Your task to perform on an android device: Open the map Image 0: 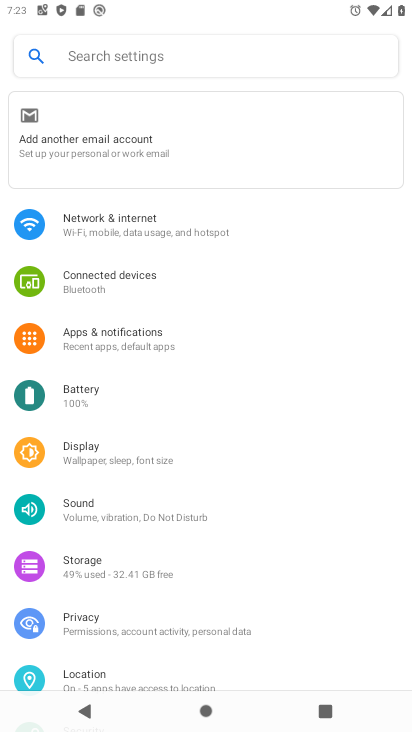
Step 0: press home button
Your task to perform on an android device: Open the map Image 1: 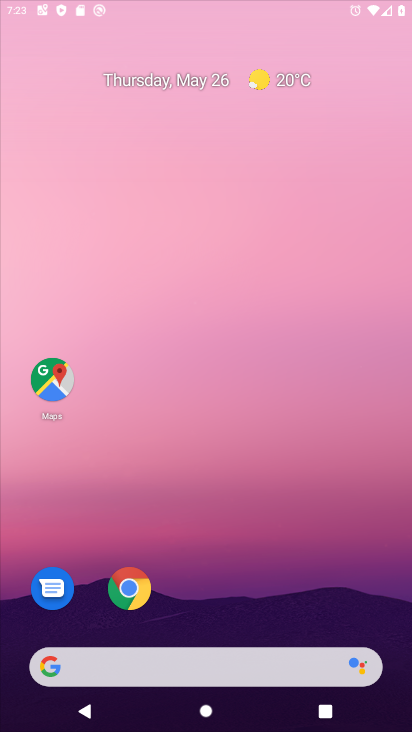
Step 1: drag from (370, 597) to (336, 0)
Your task to perform on an android device: Open the map Image 2: 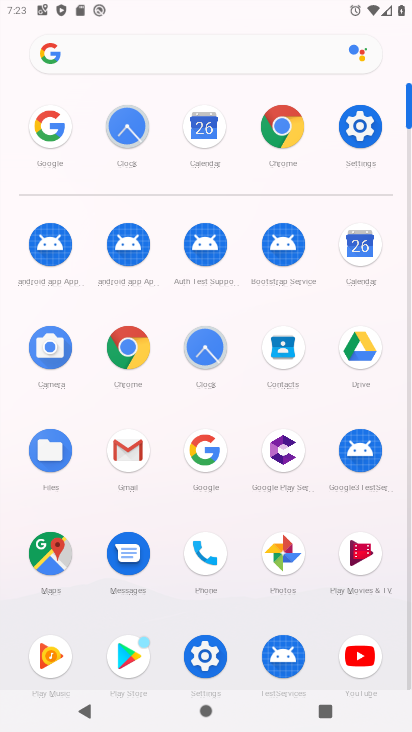
Step 2: click (51, 562)
Your task to perform on an android device: Open the map Image 3: 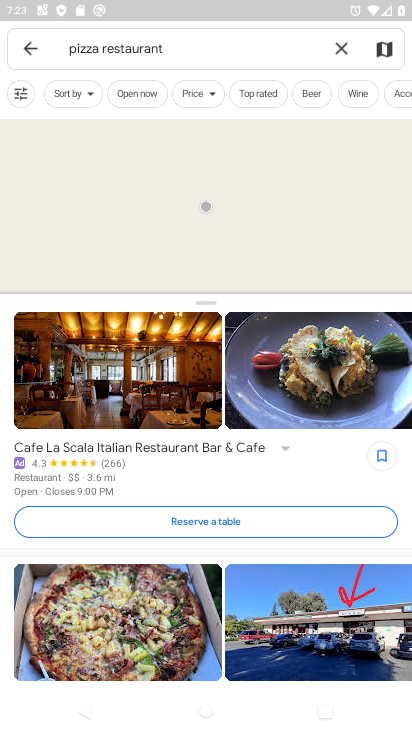
Step 3: click (331, 37)
Your task to perform on an android device: Open the map Image 4: 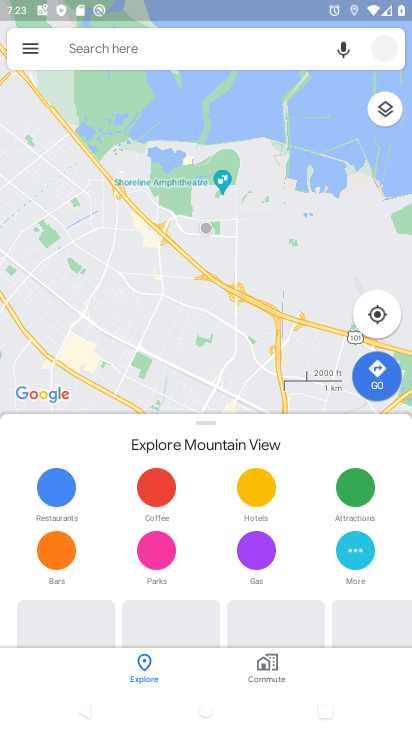
Step 4: task complete